Your task to perform on an android device: change keyboard looks Image 0: 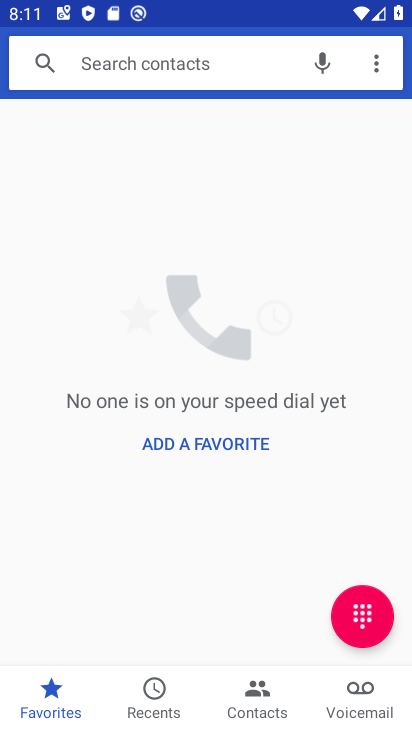
Step 0: press home button
Your task to perform on an android device: change keyboard looks Image 1: 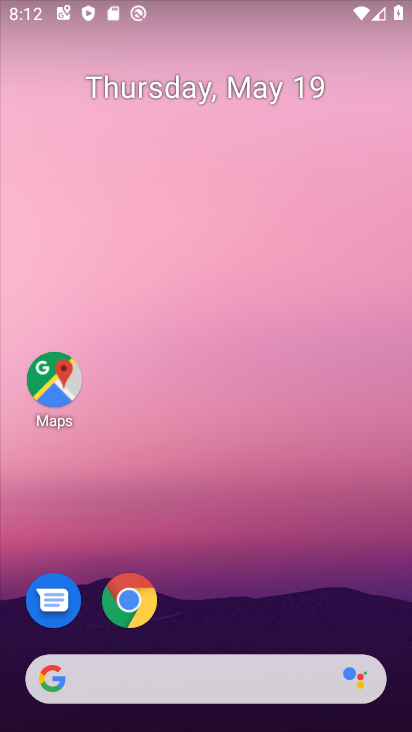
Step 1: drag from (238, 622) to (217, 14)
Your task to perform on an android device: change keyboard looks Image 2: 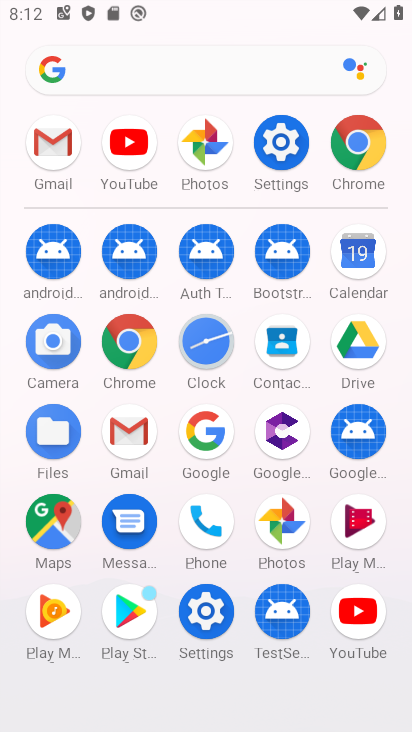
Step 2: click (281, 156)
Your task to perform on an android device: change keyboard looks Image 3: 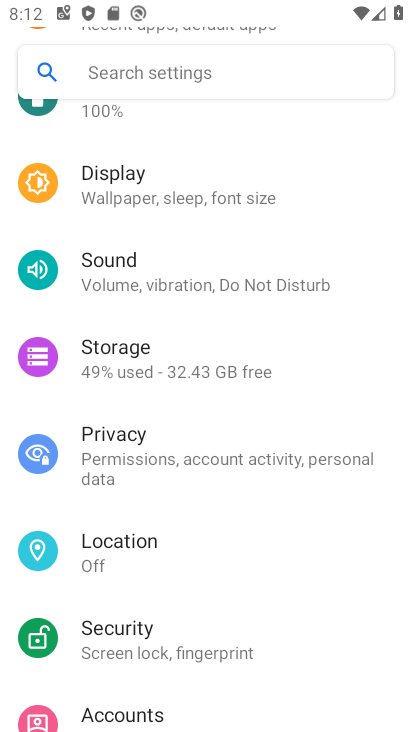
Step 3: drag from (269, 590) to (259, 170)
Your task to perform on an android device: change keyboard looks Image 4: 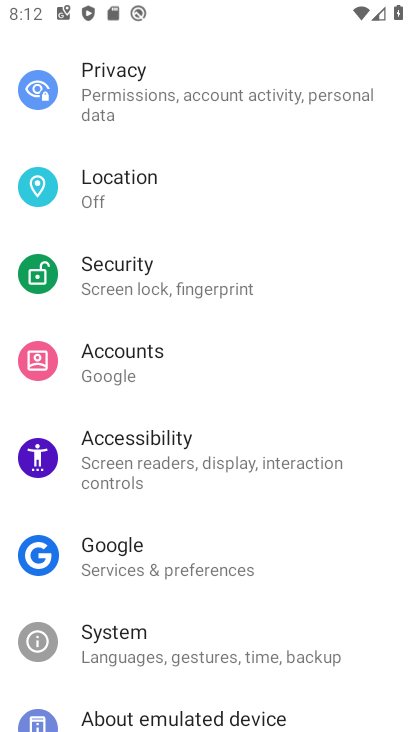
Step 4: drag from (261, 577) to (274, 299)
Your task to perform on an android device: change keyboard looks Image 5: 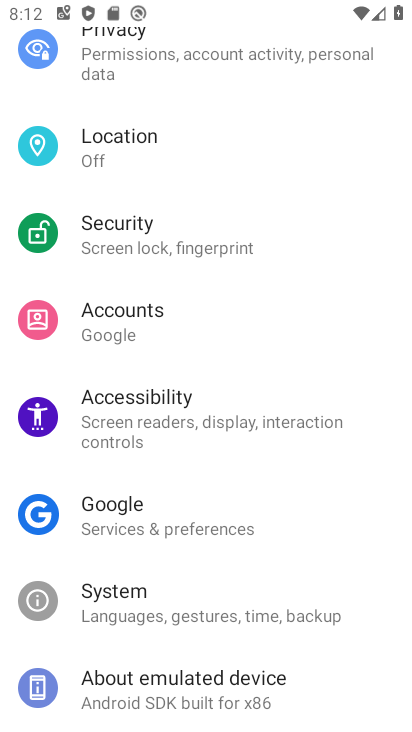
Step 5: click (112, 620)
Your task to perform on an android device: change keyboard looks Image 6: 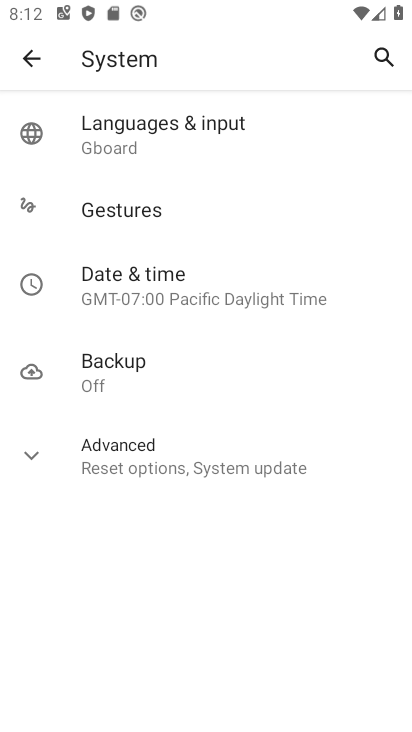
Step 6: click (111, 148)
Your task to perform on an android device: change keyboard looks Image 7: 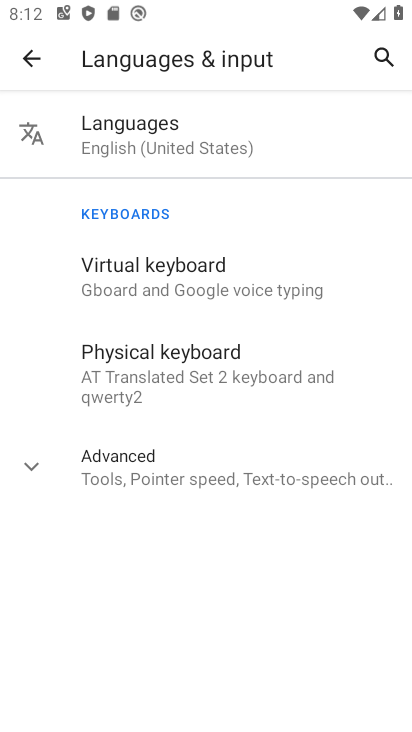
Step 7: click (103, 283)
Your task to perform on an android device: change keyboard looks Image 8: 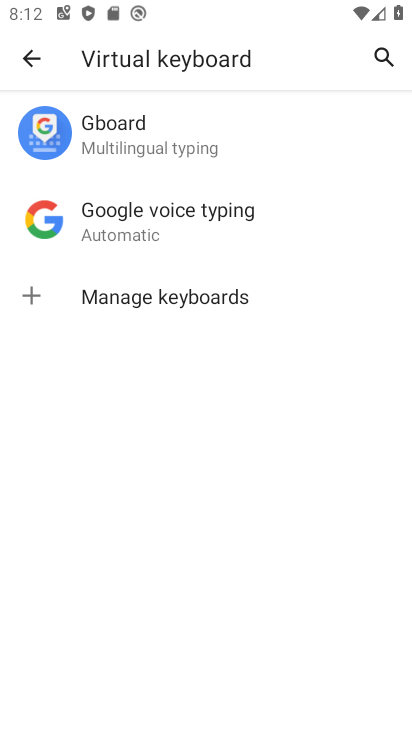
Step 8: click (102, 139)
Your task to perform on an android device: change keyboard looks Image 9: 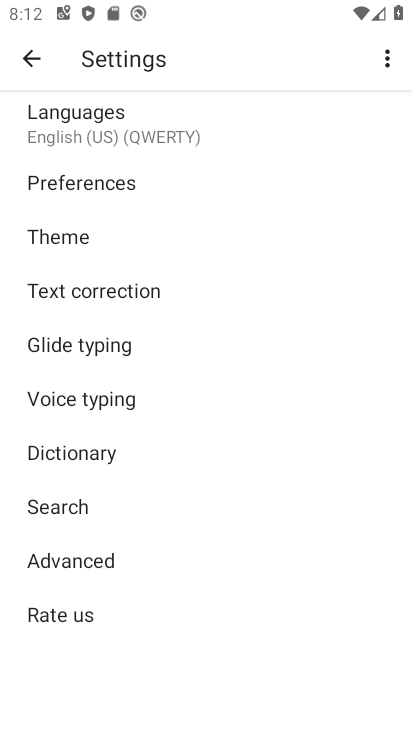
Step 9: click (65, 239)
Your task to perform on an android device: change keyboard looks Image 10: 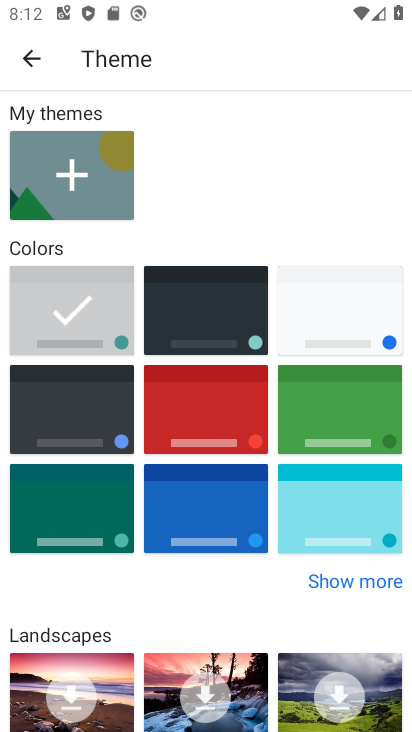
Step 10: click (182, 527)
Your task to perform on an android device: change keyboard looks Image 11: 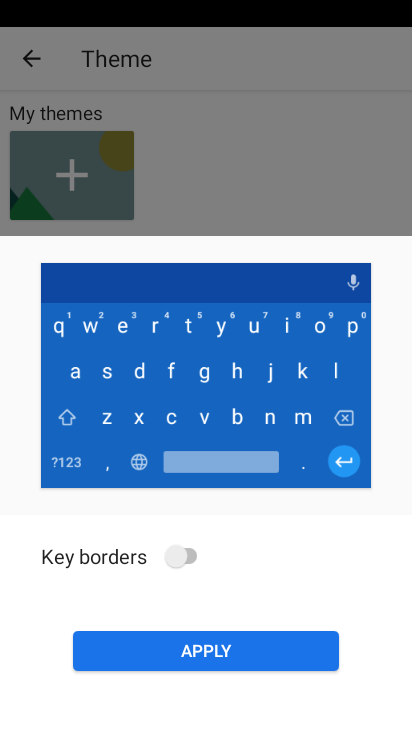
Step 11: click (180, 544)
Your task to perform on an android device: change keyboard looks Image 12: 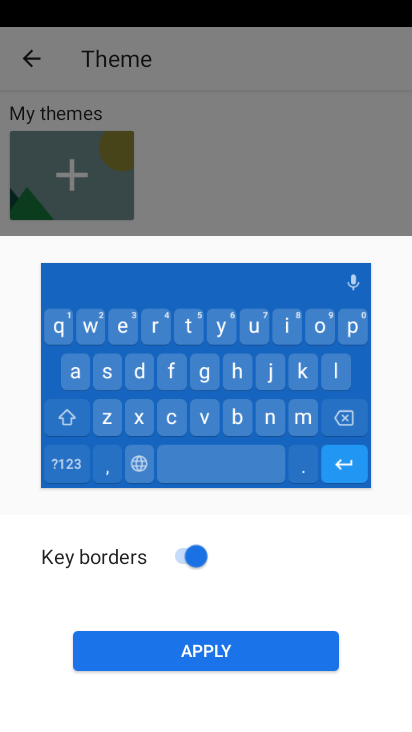
Step 12: click (168, 649)
Your task to perform on an android device: change keyboard looks Image 13: 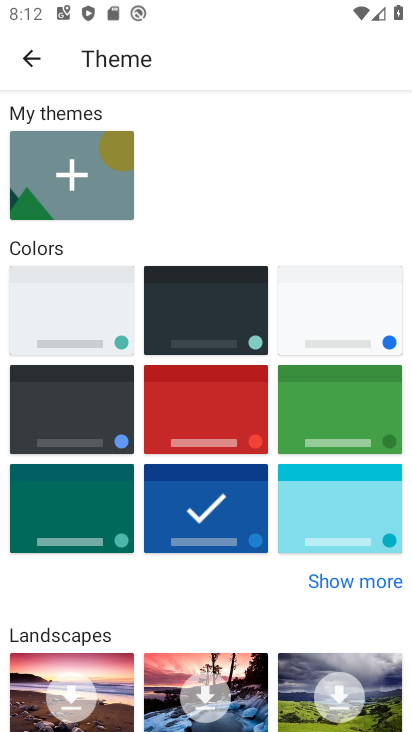
Step 13: task complete